Your task to perform on an android device: turn off translation in the chrome app Image 0: 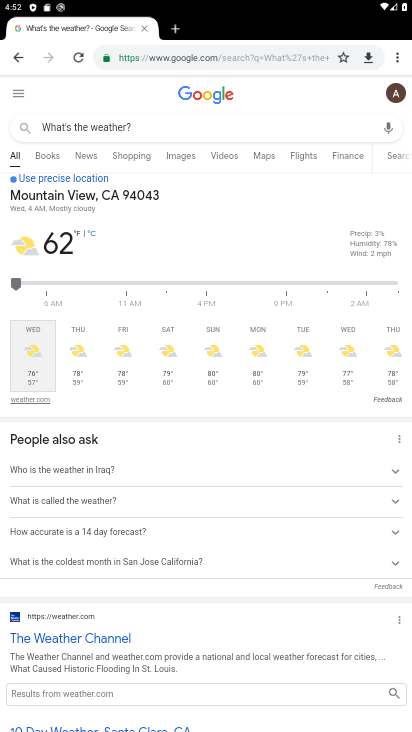
Step 0: drag from (394, 55) to (272, 349)
Your task to perform on an android device: turn off translation in the chrome app Image 1: 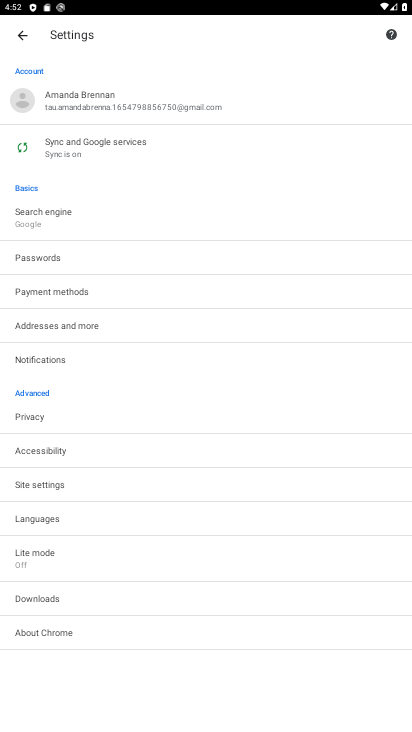
Step 1: click (36, 517)
Your task to perform on an android device: turn off translation in the chrome app Image 2: 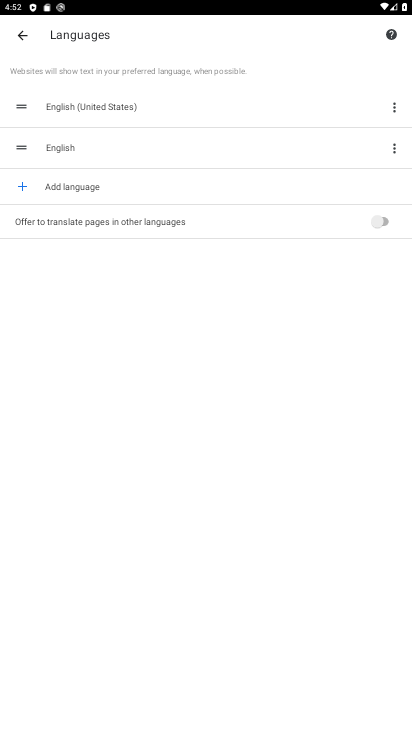
Step 2: task complete